Your task to perform on an android device: When is my next meeting? Image 0: 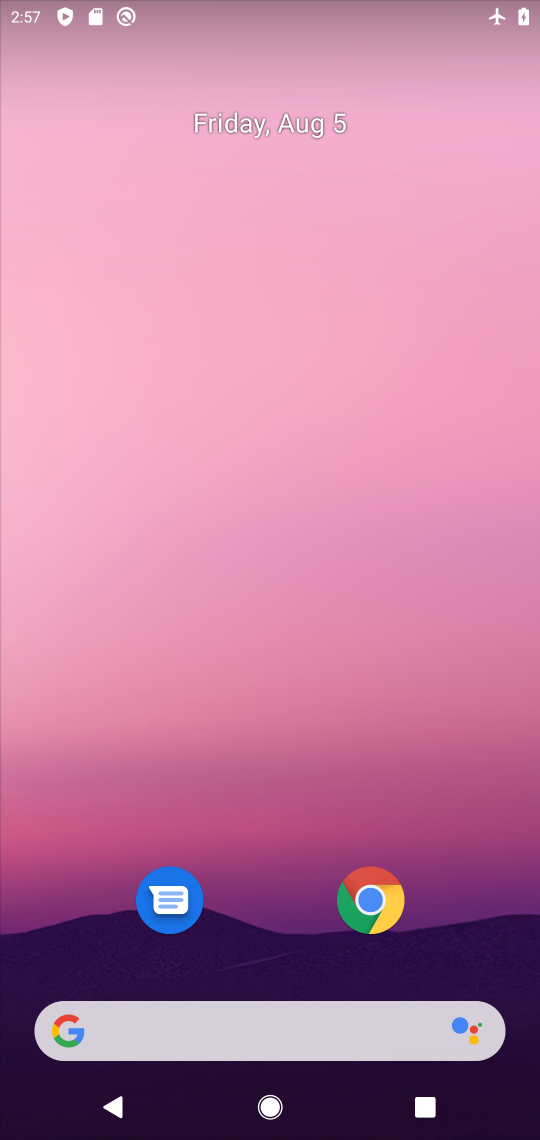
Step 0: drag from (285, 947) to (317, 302)
Your task to perform on an android device: When is my next meeting? Image 1: 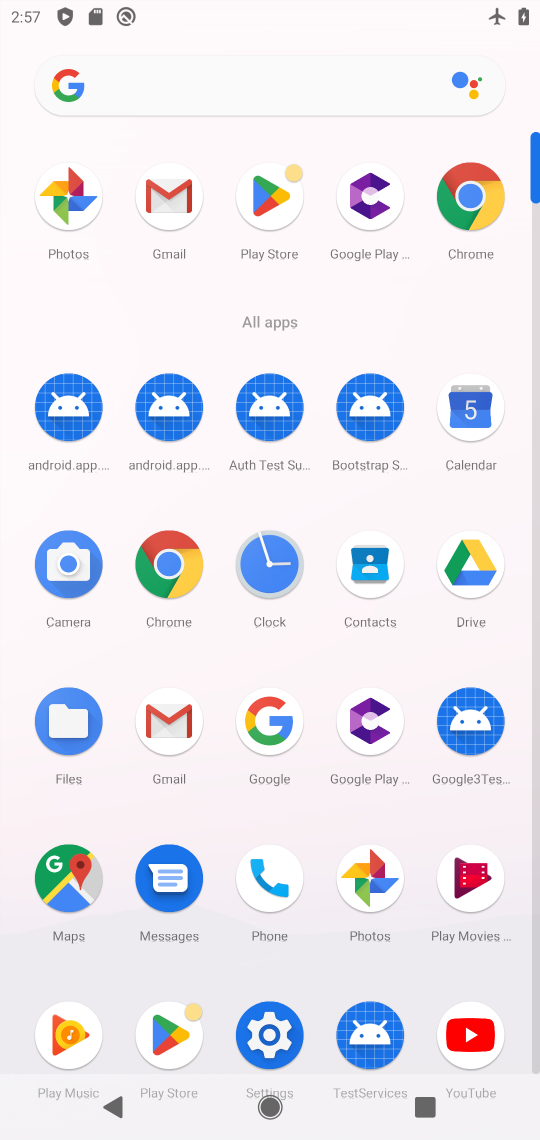
Step 1: click (473, 414)
Your task to perform on an android device: When is my next meeting? Image 2: 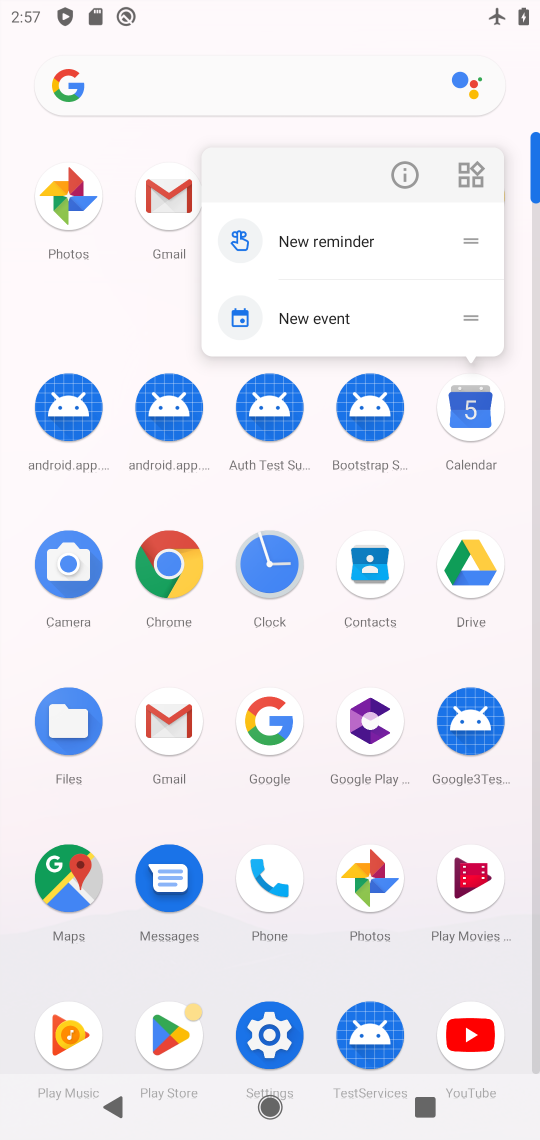
Step 2: click (478, 415)
Your task to perform on an android device: When is my next meeting? Image 3: 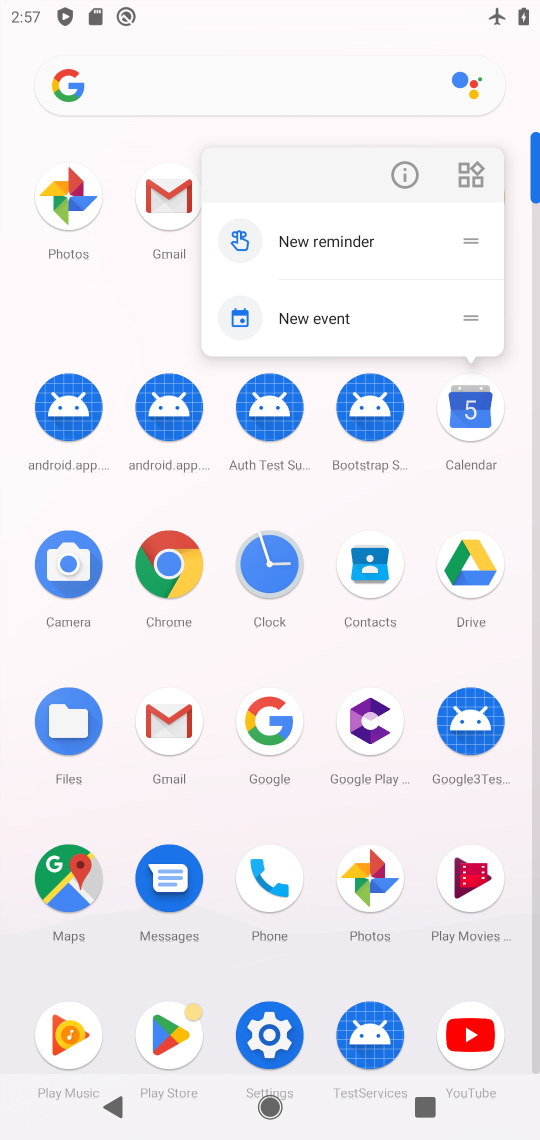
Step 3: click (457, 425)
Your task to perform on an android device: When is my next meeting? Image 4: 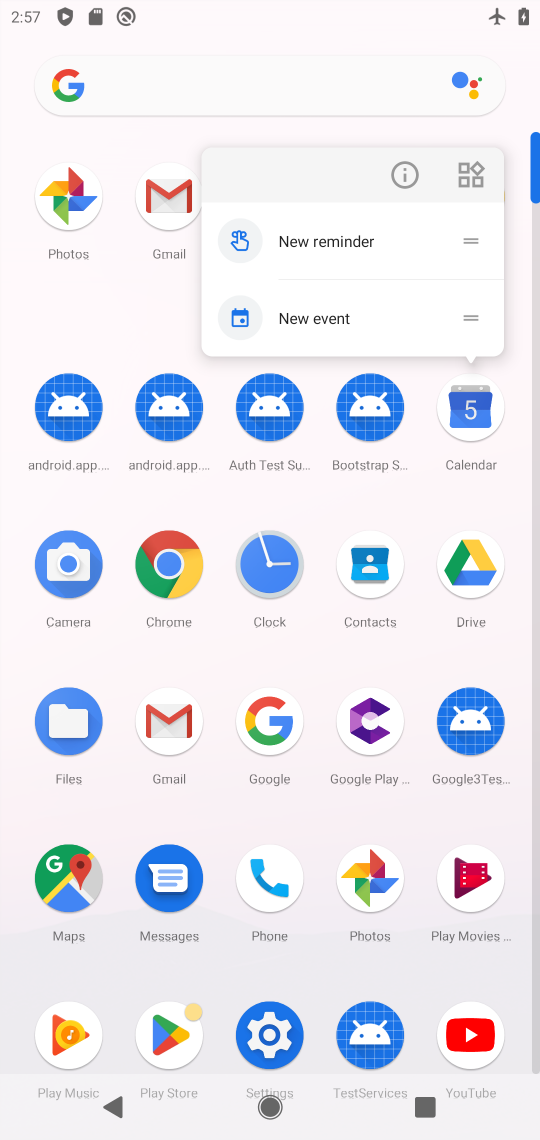
Step 4: click (457, 440)
Your task to perform on an android device: When is my next meeting? Image 5: 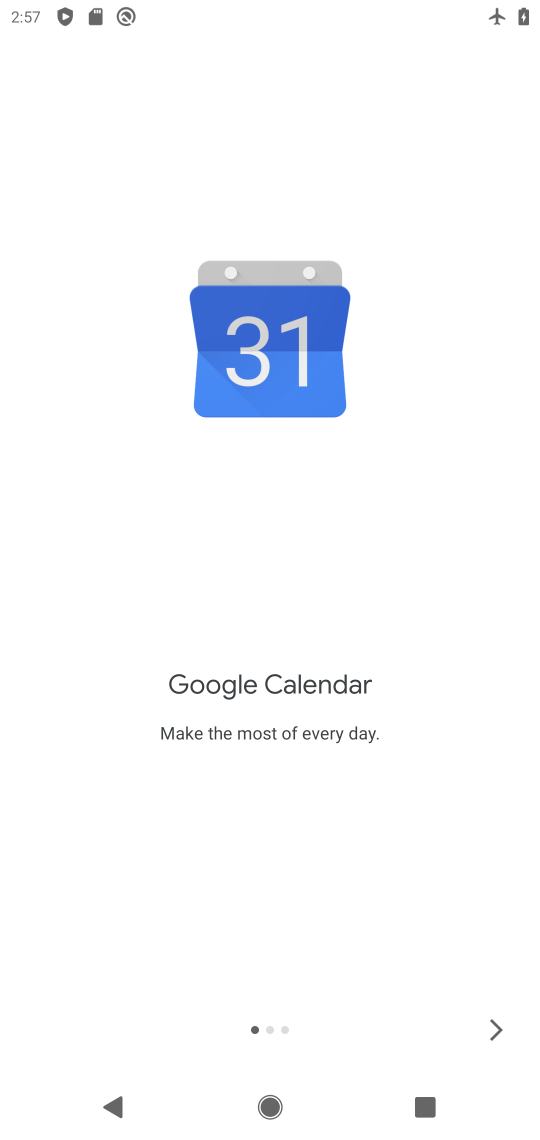
Step 5: click (489, 1029)
Your task to perform on an android device: When is my next meeting? Image 6: 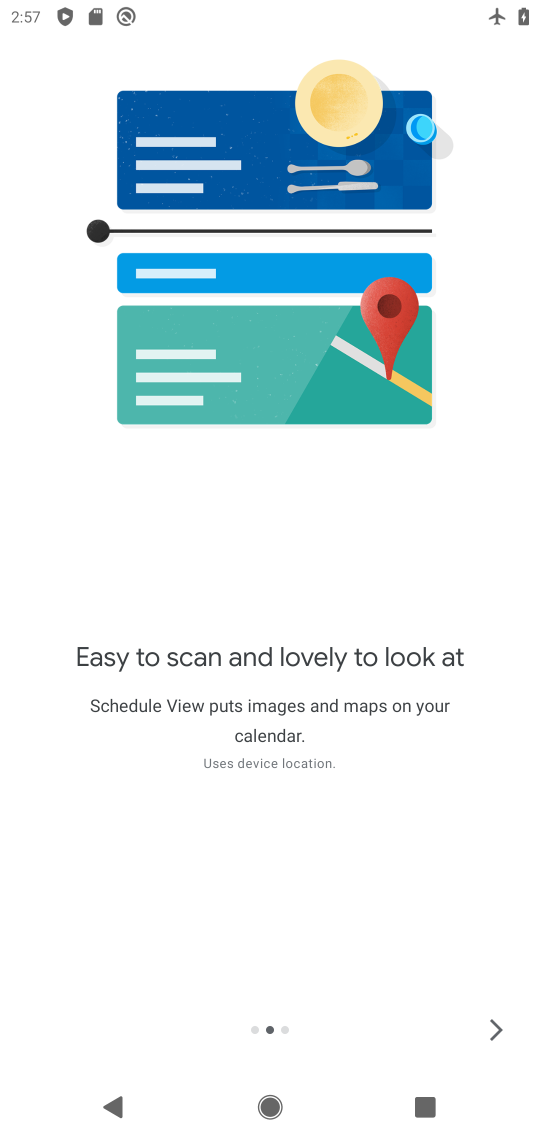
Step 6: click (489, 1028)
Your task to perform on an android device: When is my next meeting? Image 7: 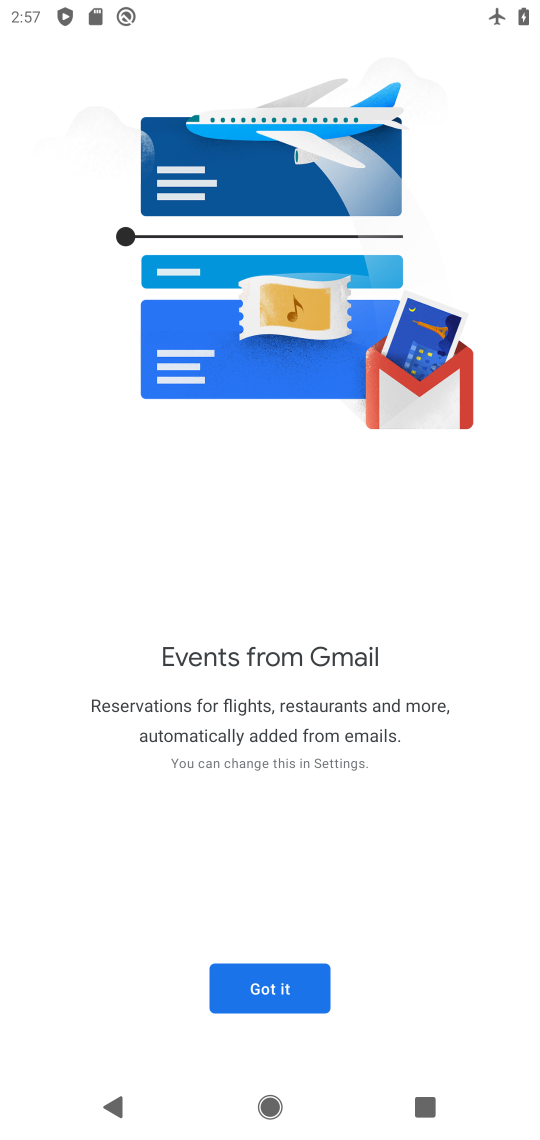
Step 7: click (290, 984)
Your task to perform on an android device: When is my next meeting? Image 8: 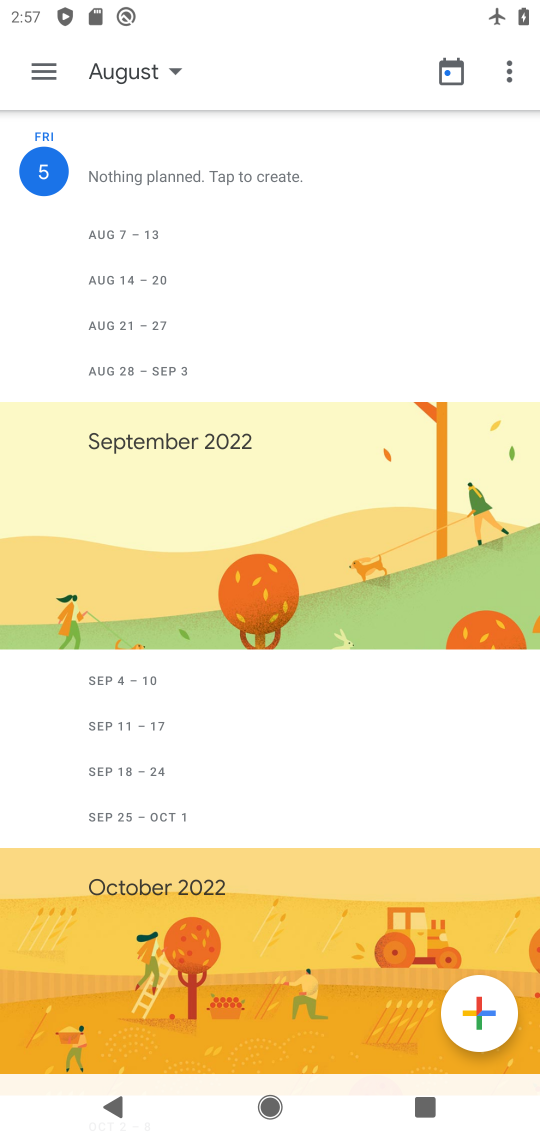
Step 8: click (44, 69)
Your task to perform on an android device: When is my next meeting? Image 9: 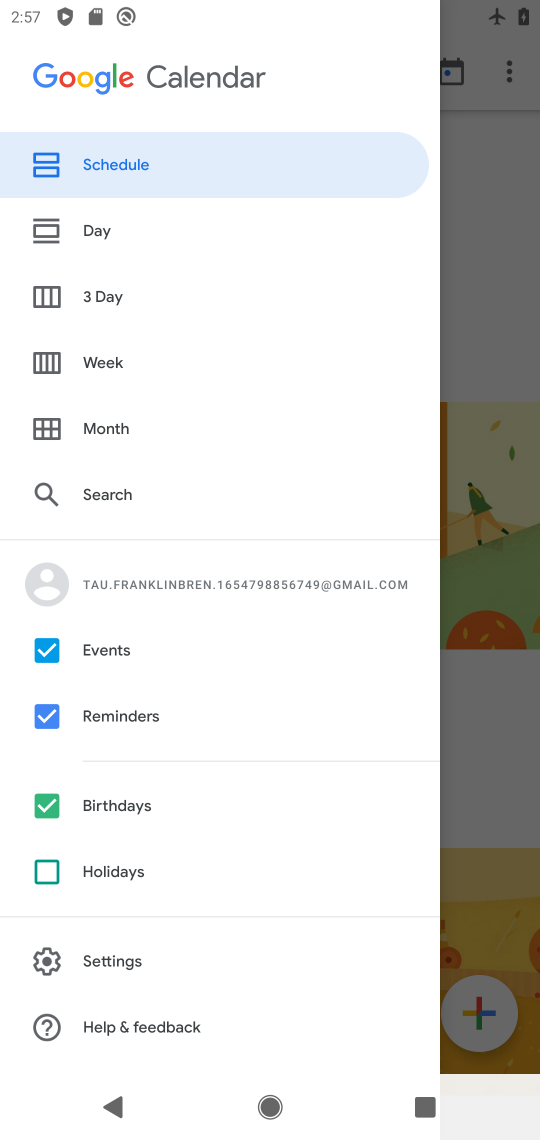
Step 9: click (186, 160)
Your task to perform on an android device: When is my next meeting? Image 10: 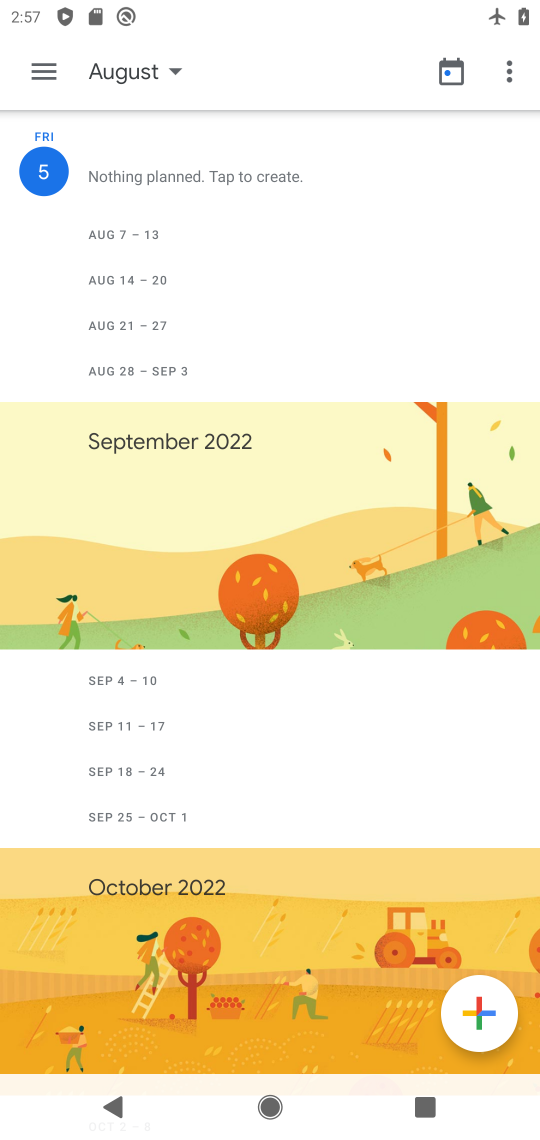
Step 10: task complete